Your task to perform on an android device: see sites visited before in the chrome app Image 0: 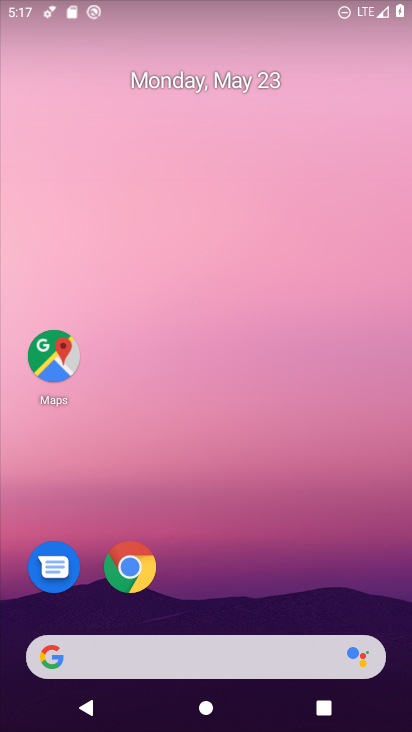
Step 0: click (131, 568)
Your task to perform on an android device: see sites visited before in the chrome app Image 1: 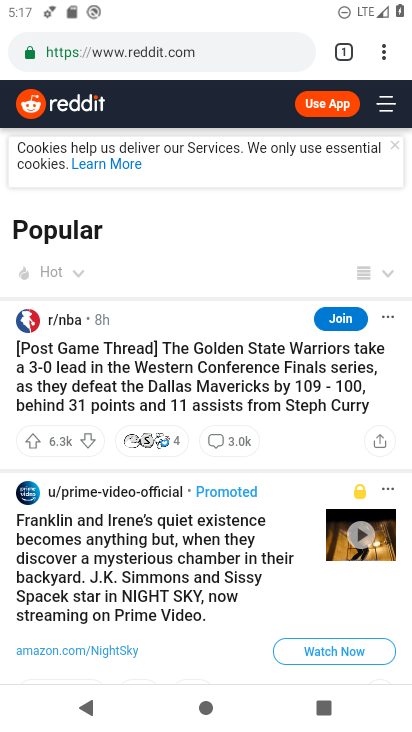
Step 1: click (384, 53)
Your task to perform on an android device: see sites visited before in the chrome app Image 2: 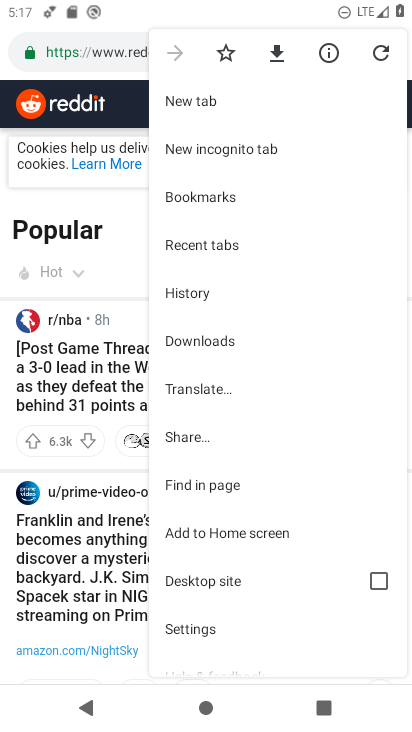
Step 2: click (203, 298)
Your task to perform on an android device: see sites visited before in the chrome app Image 3: 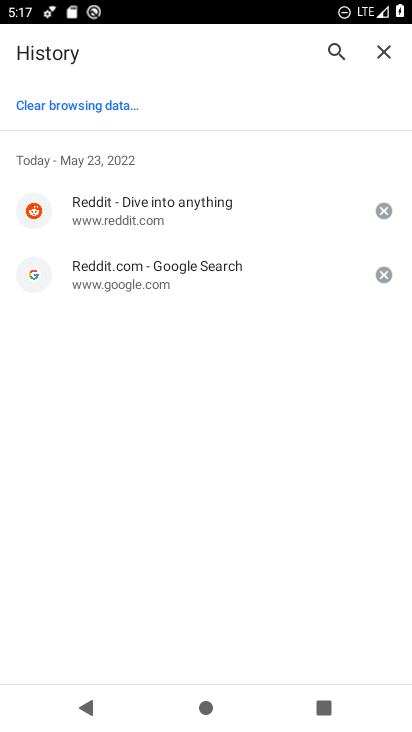
Step 3: task complete